Your task to perform on an android device: Open ESPN.com Image 0: 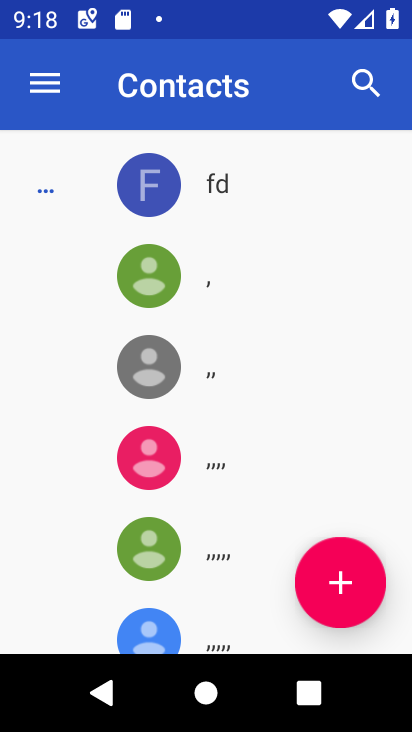
Step 0: press home button
Your task to perform on an android device: Open ESPN.com Image 1: 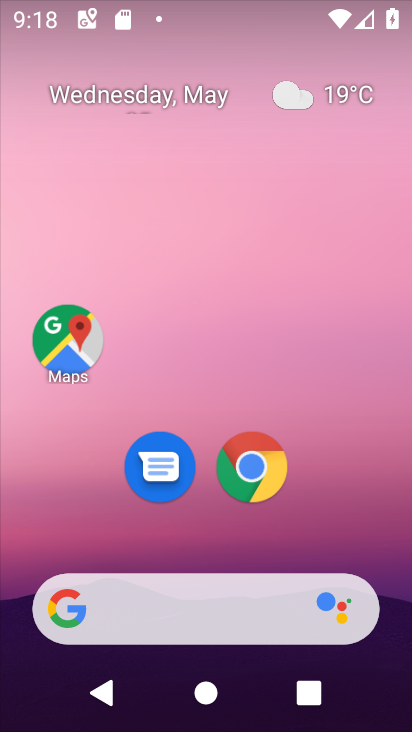
Step 1: click (250, 470)
Your task to perform on an android device: Open ESPN.com Image 2: 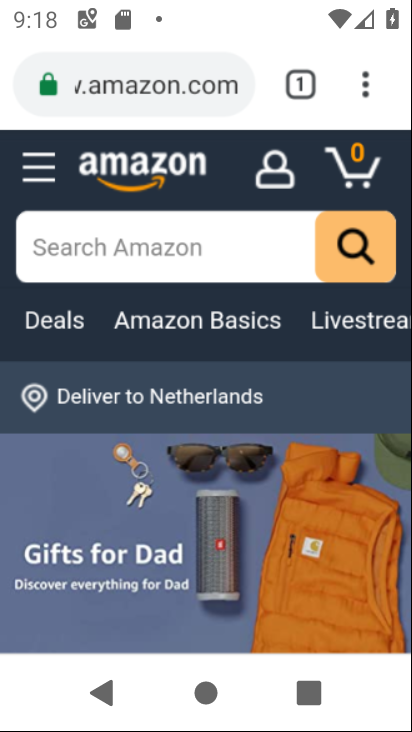
Step 2: click (172, 86)
Your task to perform on an android device: Open ESPN.com Image 3: 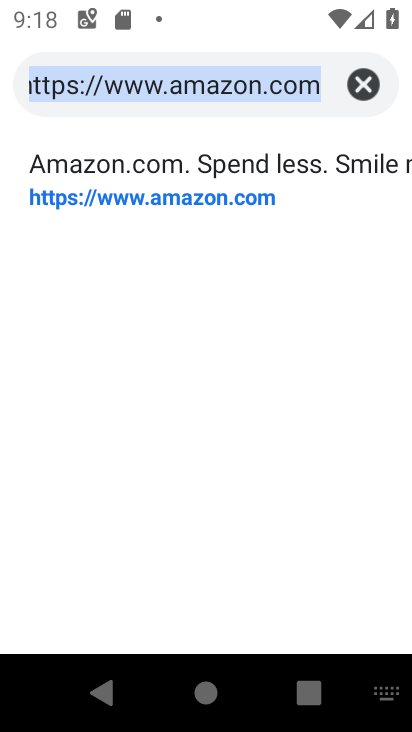
Step 3: type "espn.com"
Your task to perform on an android device: Open ESPN.com Image 4: 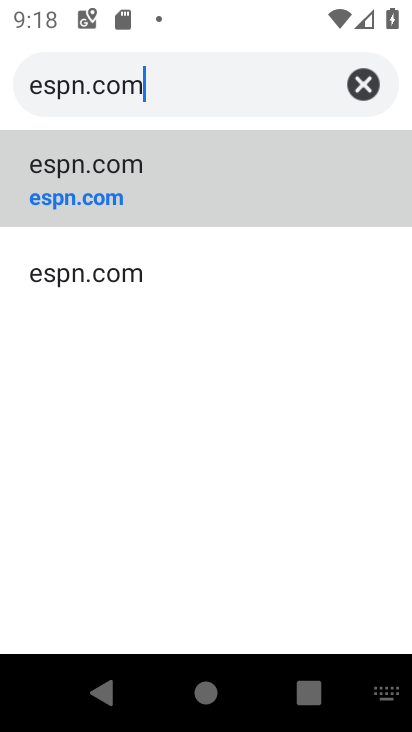
Step 4: click (93, 185)
Your task to perform on an android device: Open ESPN.com Image 5: 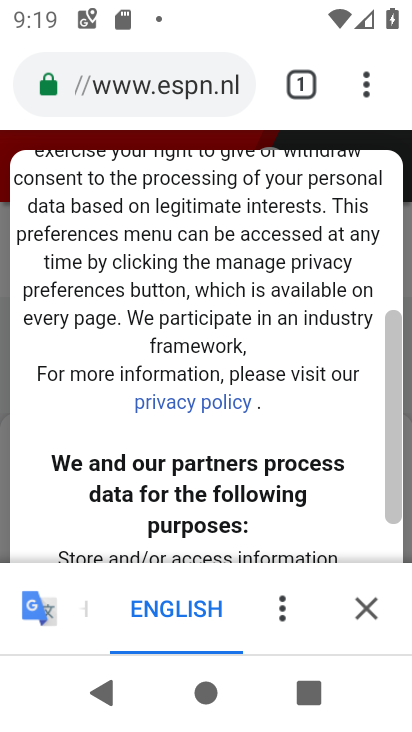
Step 5: task complete